Your task to perform on an android device: turn off improve location accuracy Image 0: 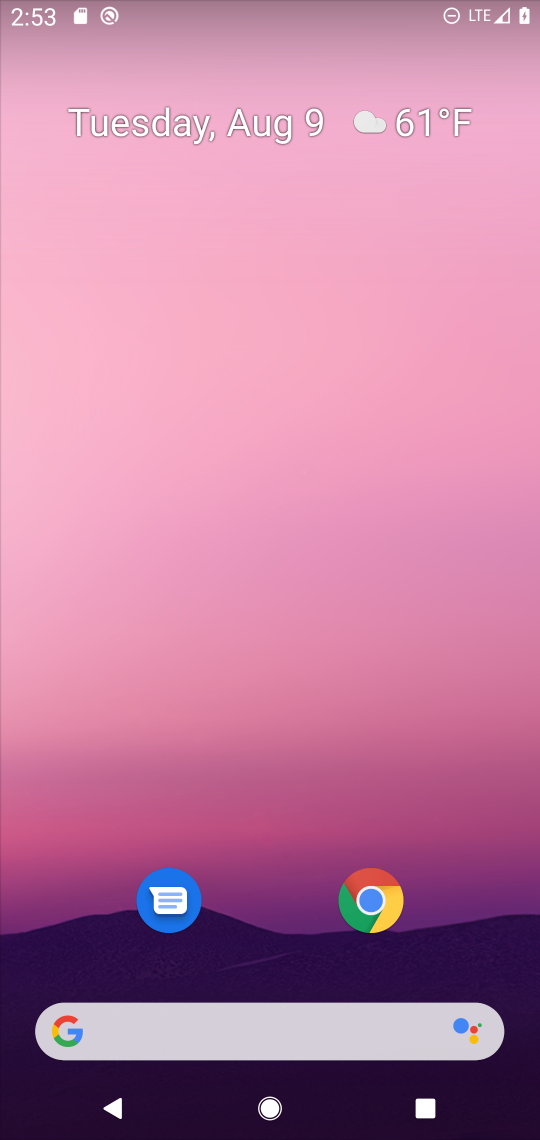
Step 0: drag from (457, 931) to (476, 408)
Your task to perform on an android device: turn off improve location accuracy Image 1: 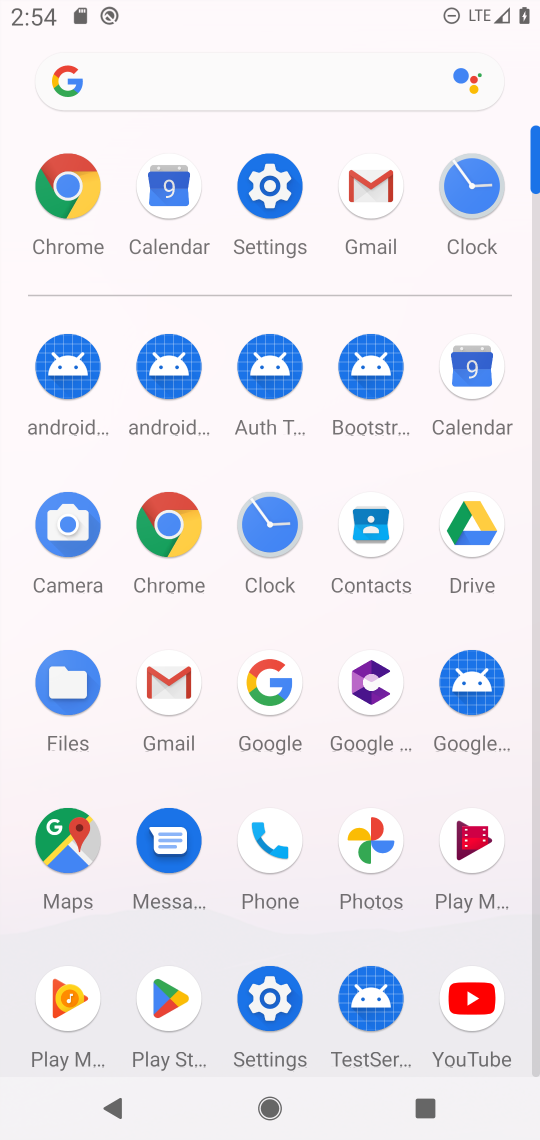
Step 1: click (271, 188)
Your task to perform on an android device: turn off improve location accuracy Image 2: 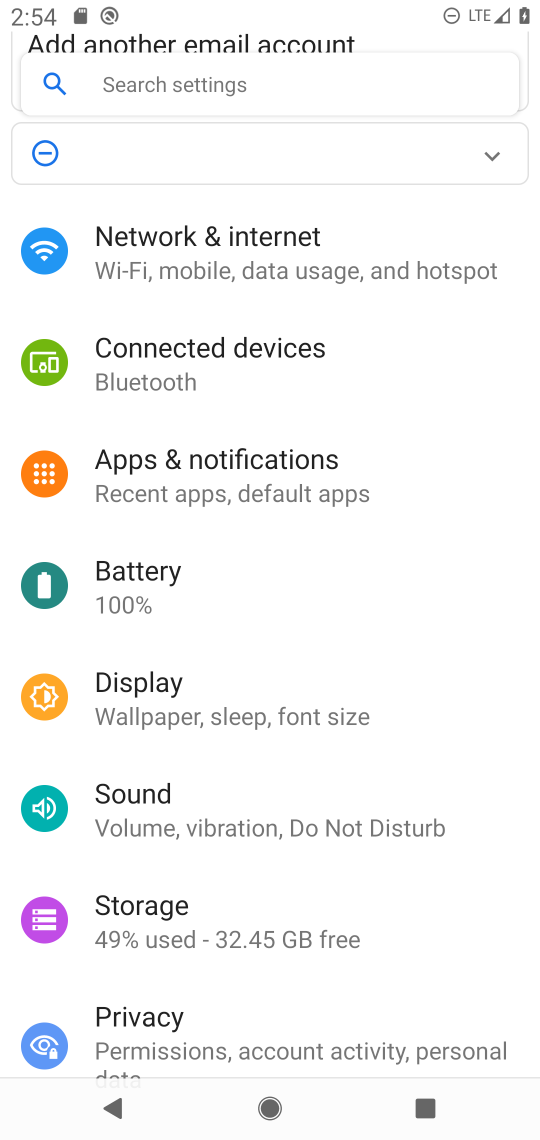
Step 2: drag from (458, 604) to (471, 513)
Your task to perform on an android device: turn off improve location accuracy Image 3: 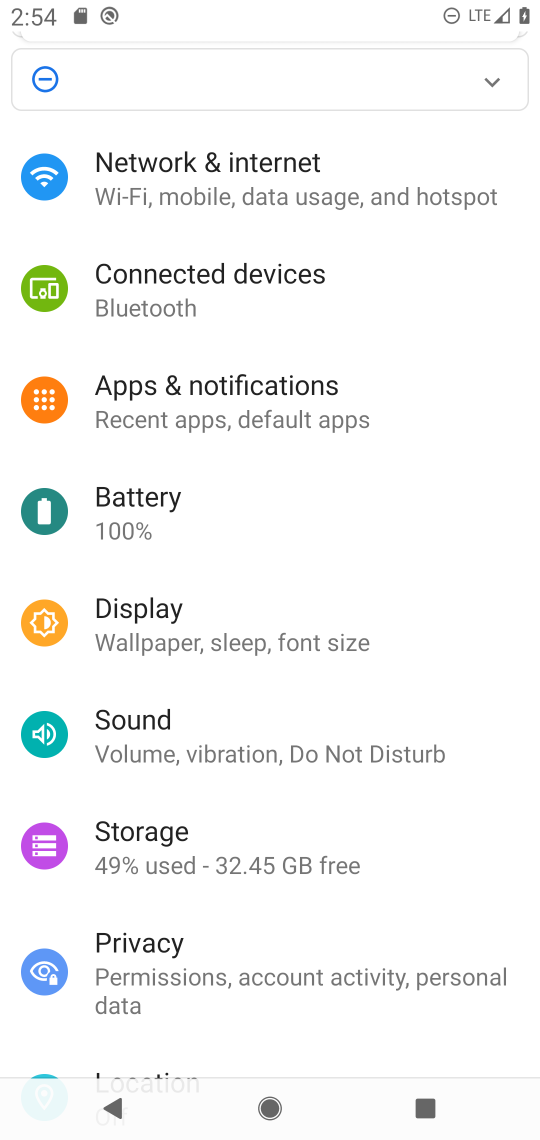
Step 3: drag from (449, 662) to (457, 540)
Your task to perform on an android device: turn off improve location accuracy Image 4: 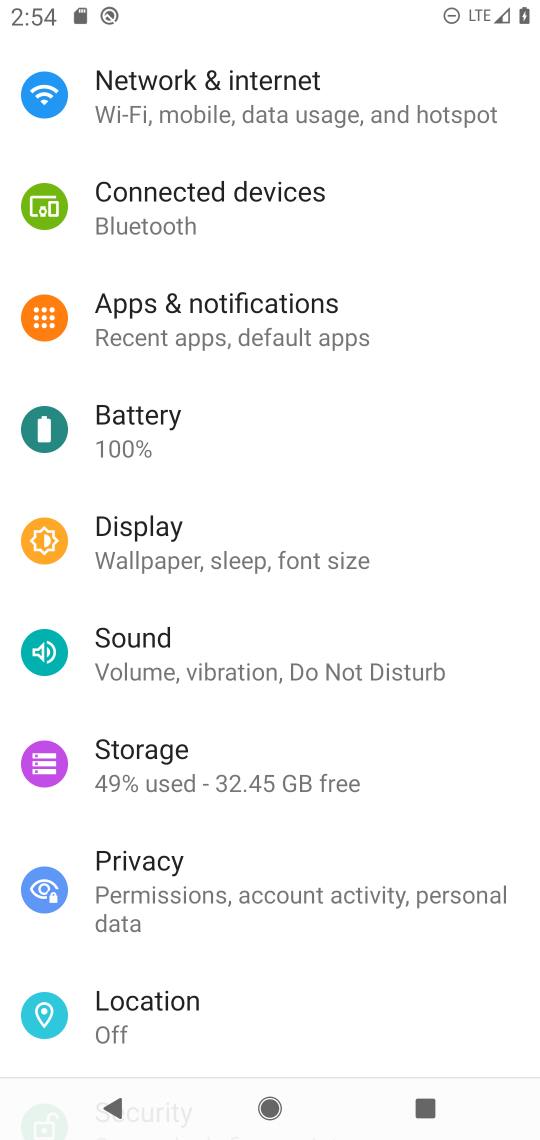
Step 4: drag from (475, 735) to (485, 559)
Your task to perform on an android device: turn off improve location accuracy Image 5: 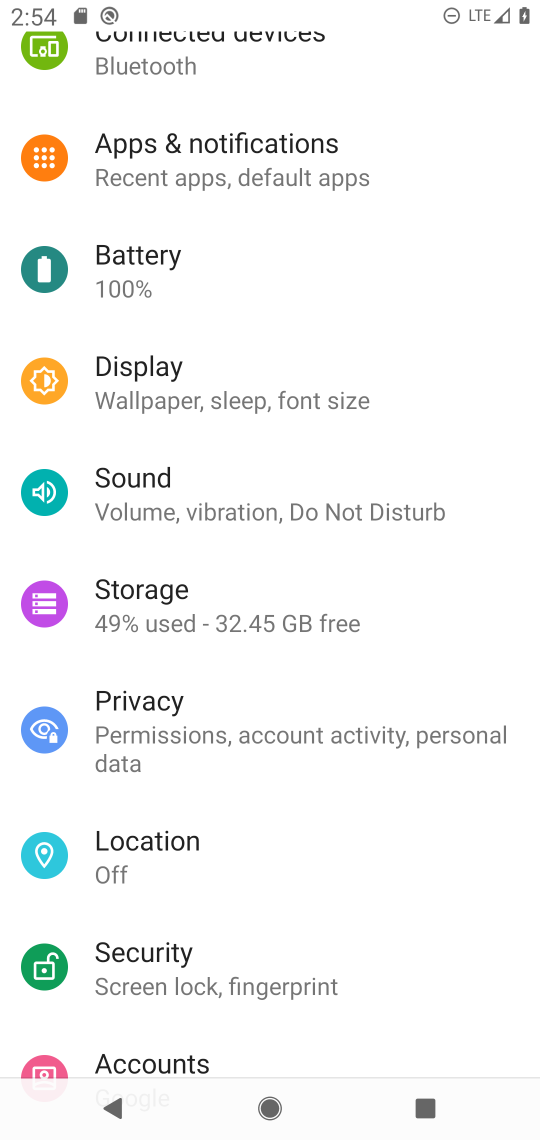
Step 5: drag from (459, 753) to (475, 588)
Your task to perform on an android device: turn off improve location accuracy Image 6: 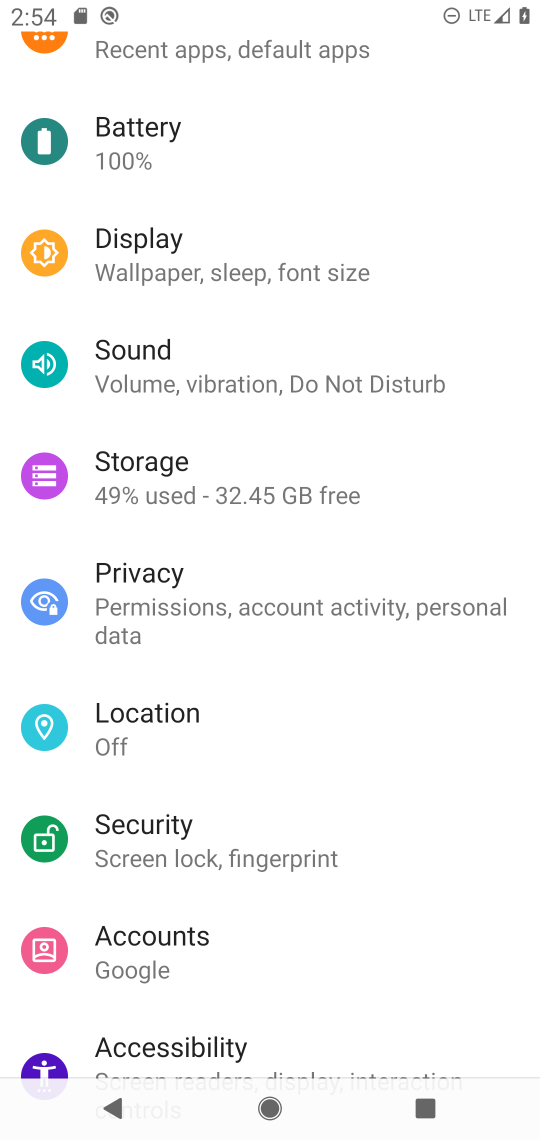
Step 6: drag from (460, 717) to (468, 565)
Your task to perform on an android device: turn off improve location accuracy Image 7: 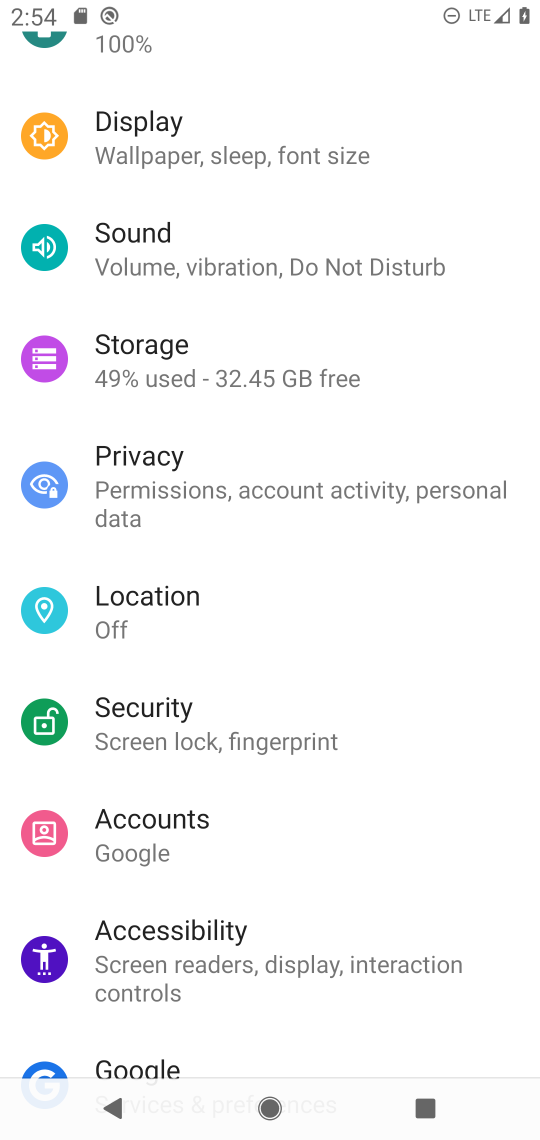
Step 7: click (218, 643)
Your task to perform on an android device: turn off improve location accuracy Image 8: 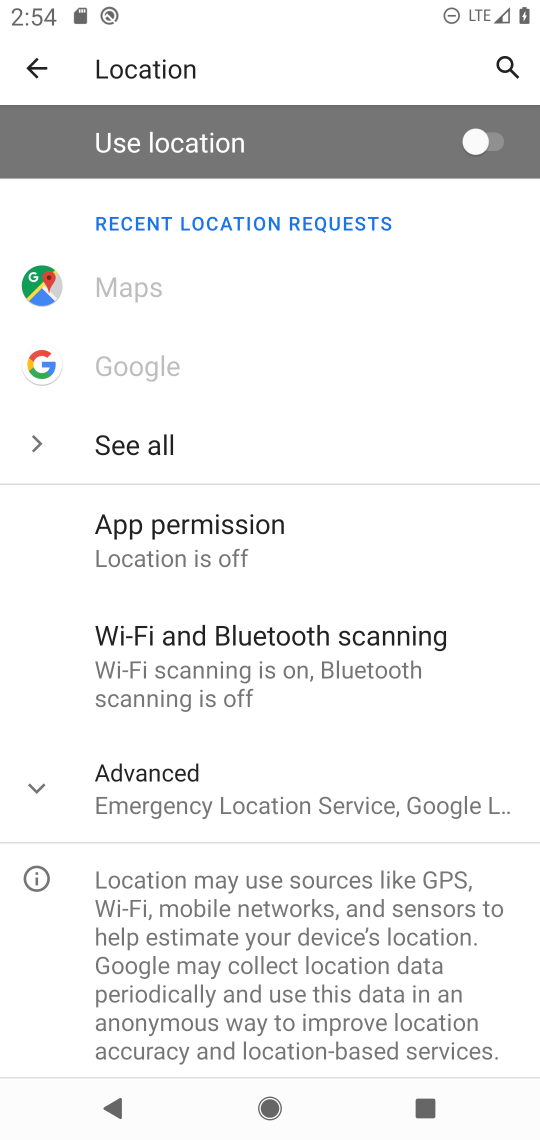
Step 8: click (254, 802)
Your task to perform on an android device: turn off improve location accuracy Image 9: 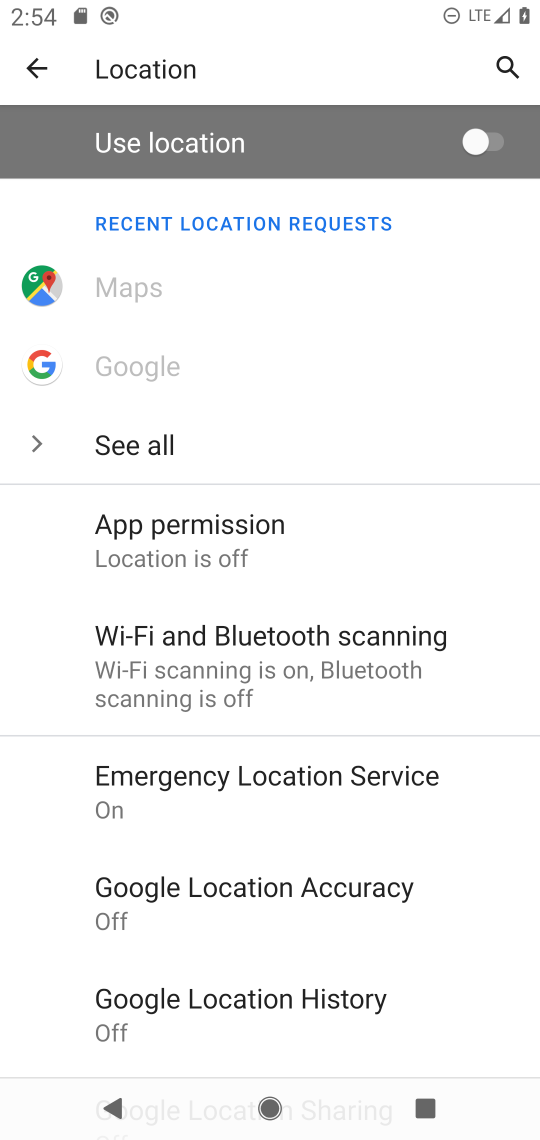
Step 9: drag from (460, 940) to (451, 722)
Your task to perform on an android device: turn off improve location accuracy Image 10: 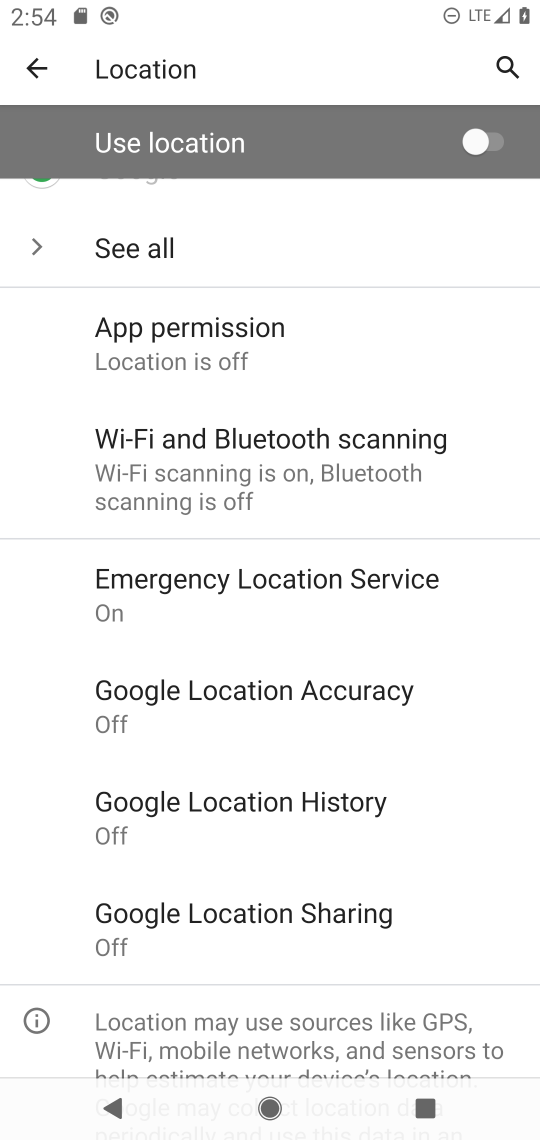
Step 10: click (387, 711)
Your task to perform on an android device: turn off improve location accuracy Image 11: 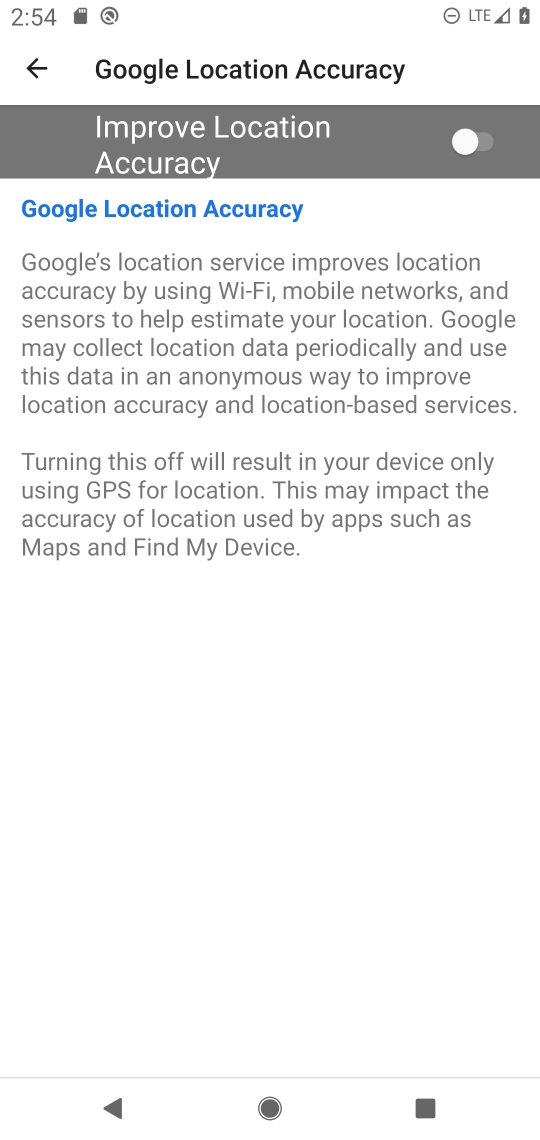
Step 11: task complete